Your task to perform on an android device: uninstall "Reddit" Image 0: 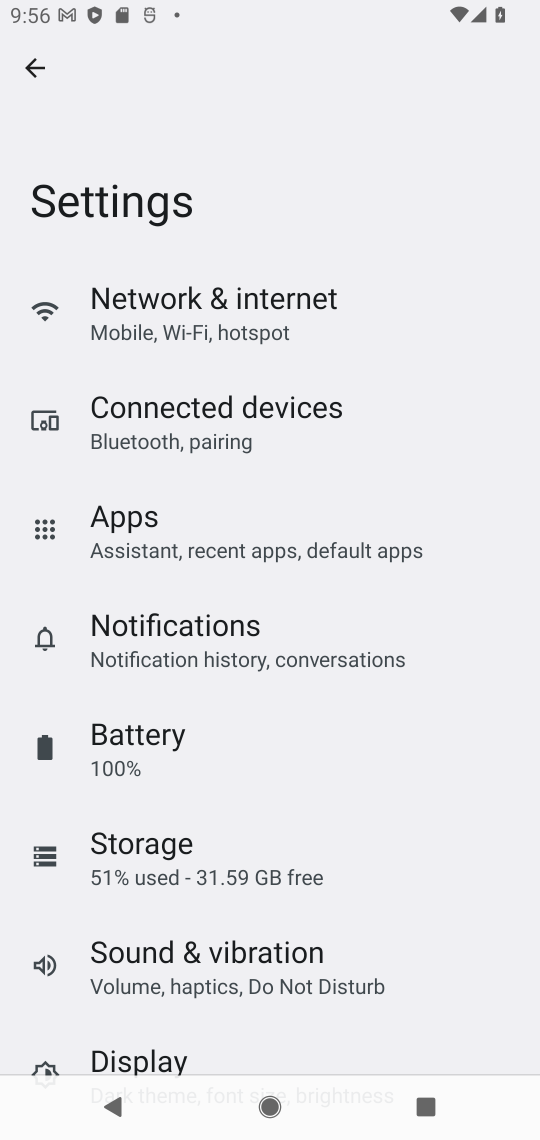
Step 0: press home button
Your task to perform on an android device: uninstall "Reddit" Image 1: 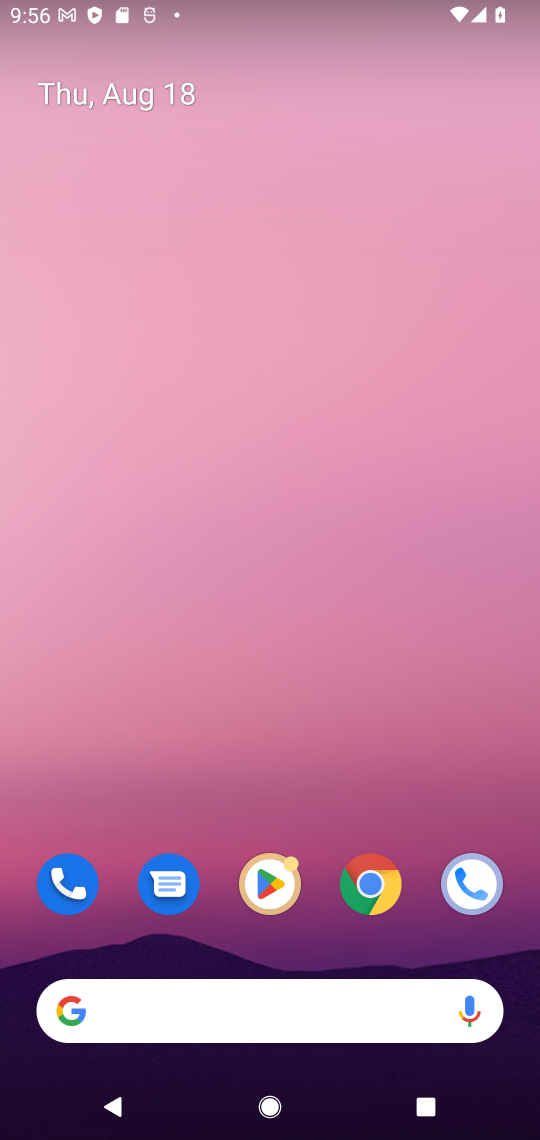
Step 1: drag from (319, 968) to (335, 299)
Your task to perform on an android device: uninstall "Reddit" Image 2: 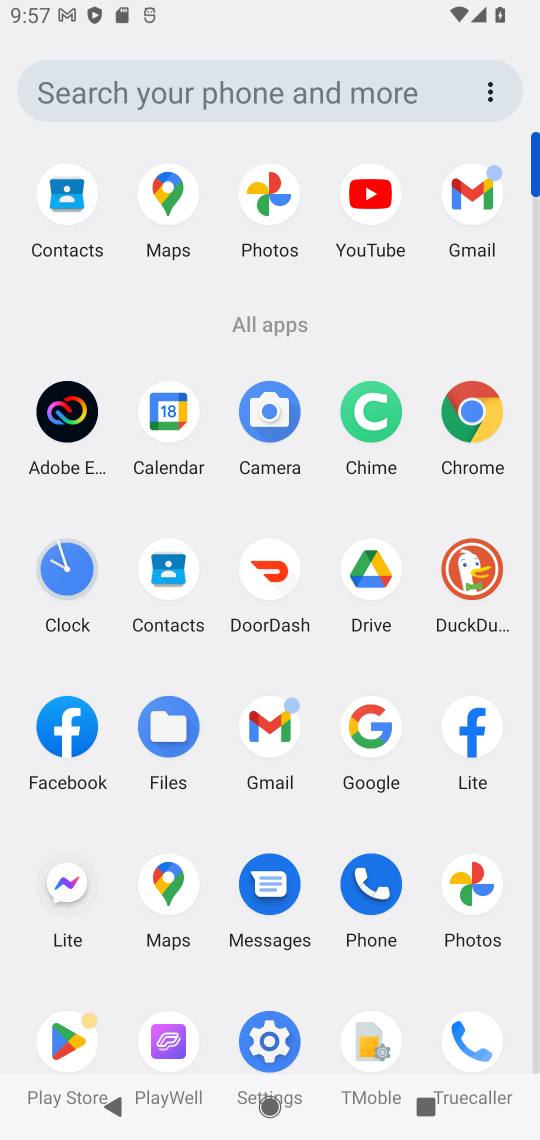
Step 2: click (67, 1050)
Your task to perform on an android device: uninstall "Reddit" Image 3: 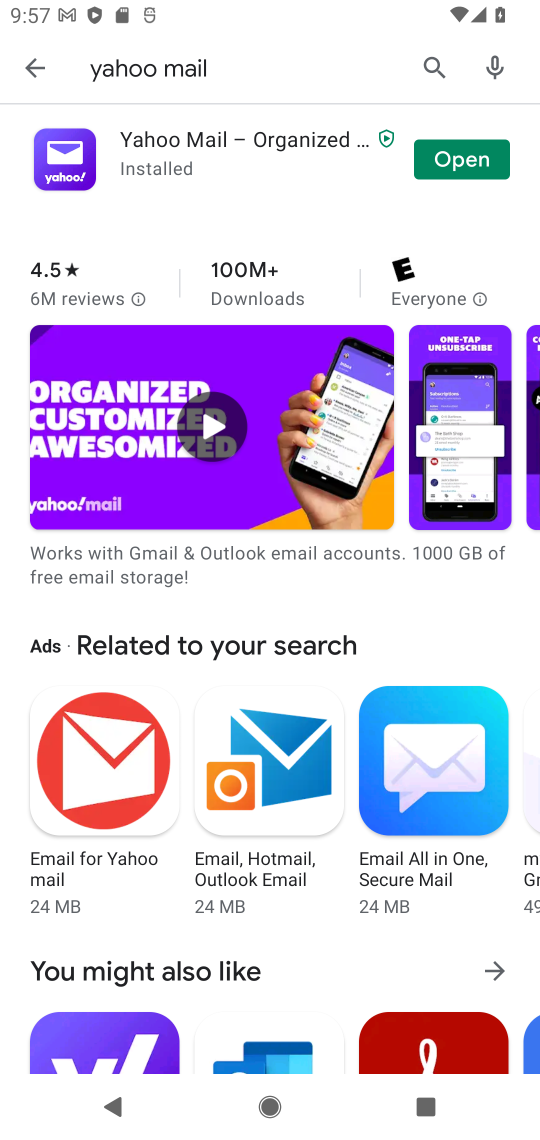
Step 3: click (432, 73)
Your task to perform on an android device: uninstall "Reddit" Image 4: 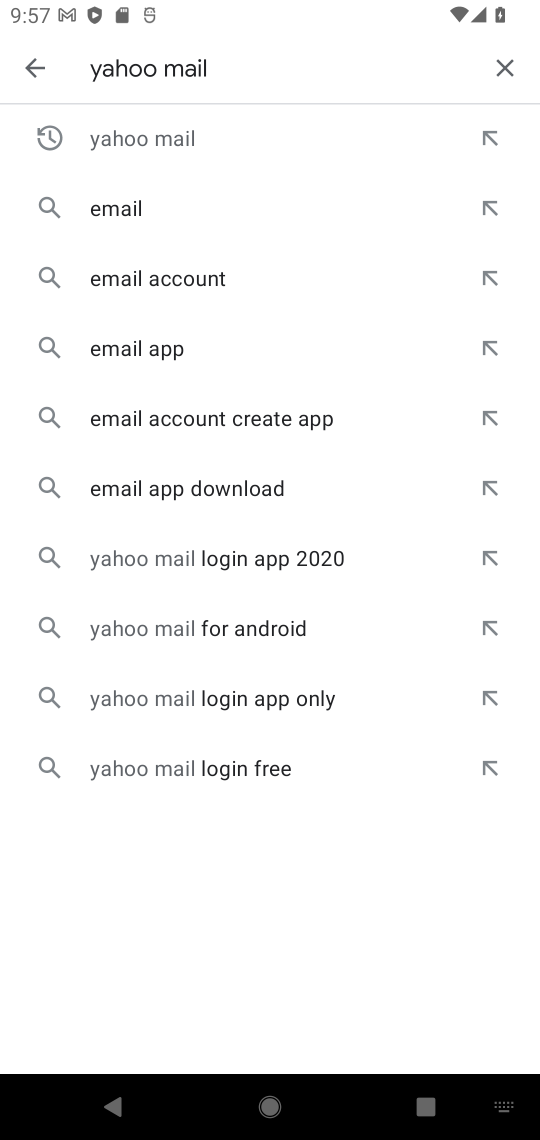
Step 4: click (500, 80)
Your task to perform on an android device: uninstall "Reddit" Image 5: 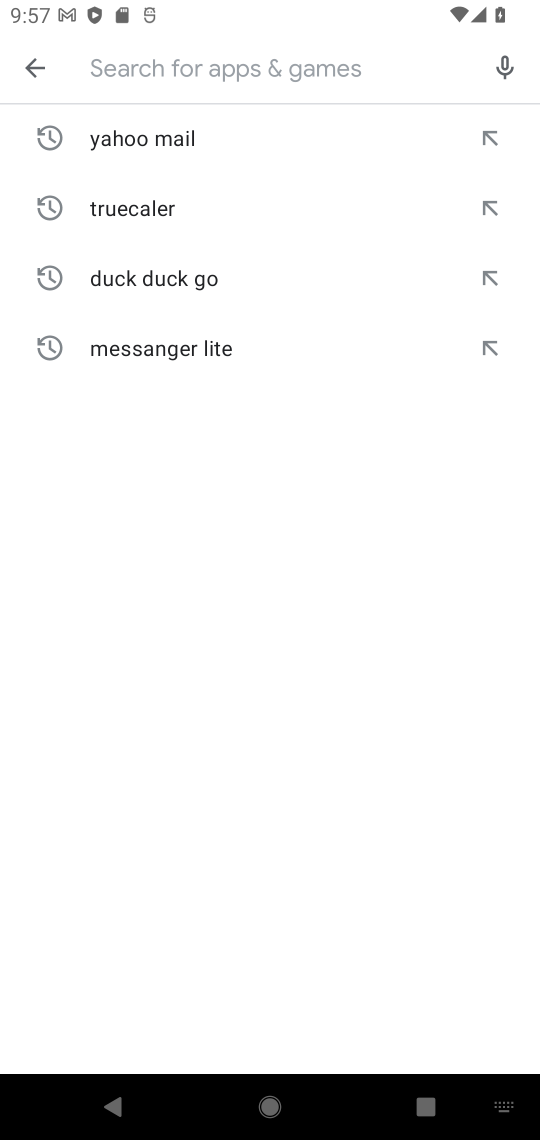
Step 5: type "reddit"
Your task to perform on an android device: uninstall "Reddit" Image 6: 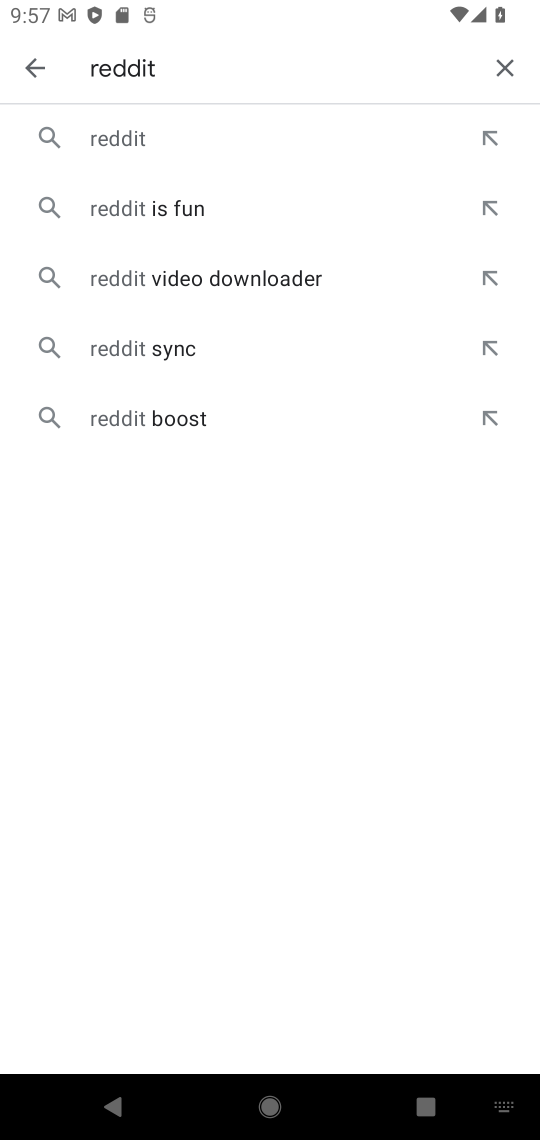
Step 6: click (341, 142)
Your task to perform on an android device: uninstall "Reddit" Image 7: 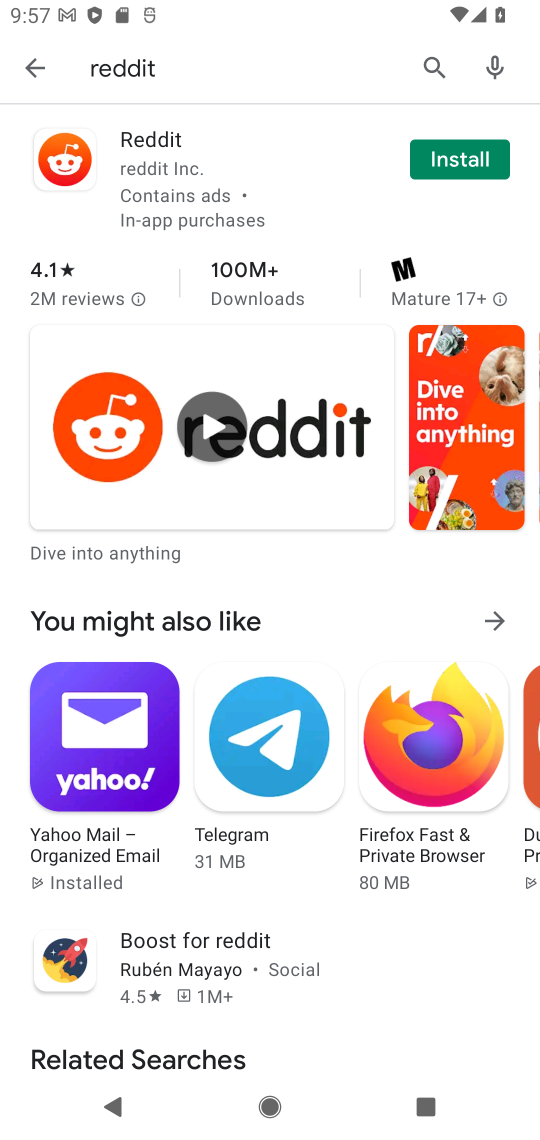
Step 7: click (437, 174)
Your task to perform on an android device: uninstall "Reddit" Image 8: 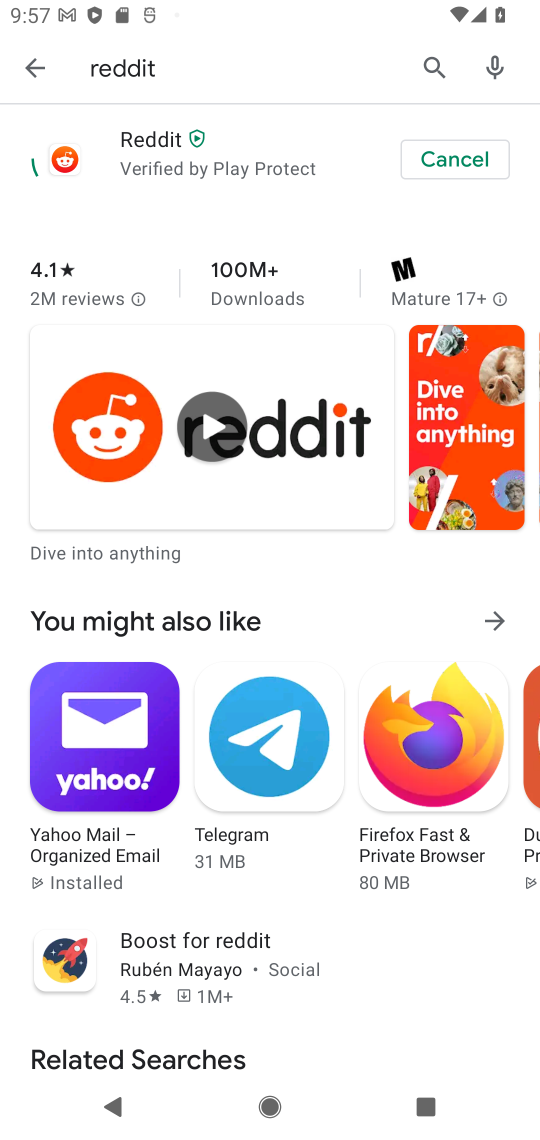
Step 8: task complete